Your task to perform on an android device: Play the last video I watched on Youtube Image 0: 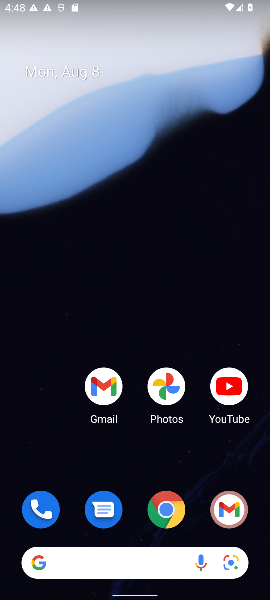
Step 0: click (221, 379)
Your task to perform on an android device: Play the last video I watched on Youtube Image 1: 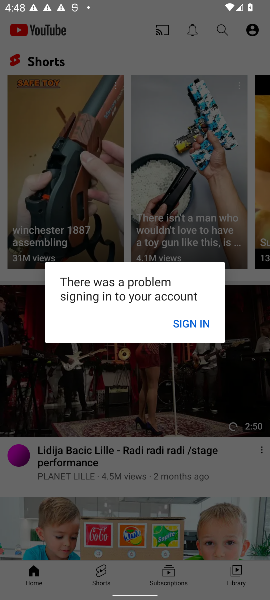
Step 1: click (190, 325)
Your task to perform on an android device: Play the last video I watched on Youtube Image 2: 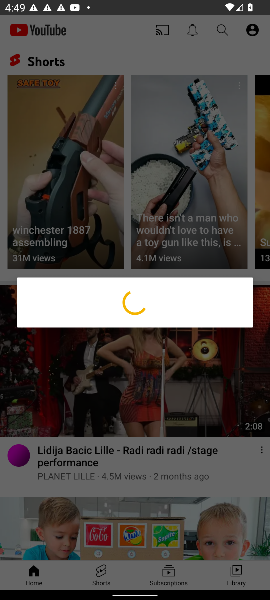
Step 2: click (231, 575)
Your task to perform on an android device: Play the last video I watched on Youtube Image 3: 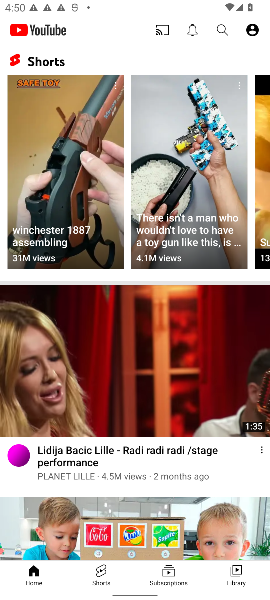
Step 3: click (233, 571)
Your task to perform on an android device: Play the last video I watched on Youtube Image 4: 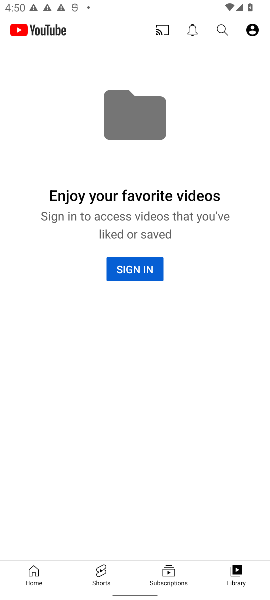
Step 4: task complete